Your task to perform on an android device: turn off priority inbox in the gmail app Image 0: 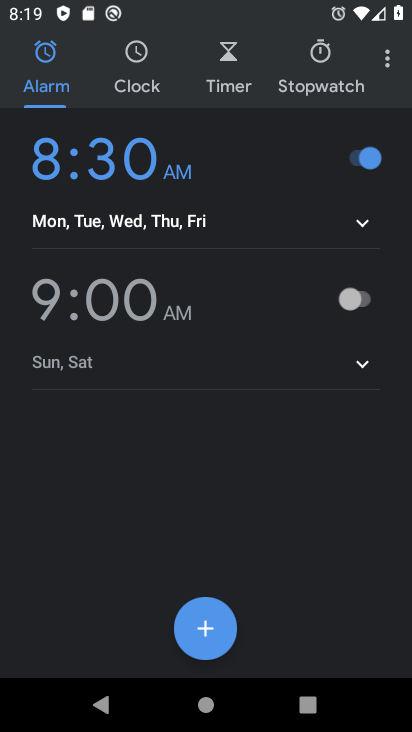
Step 0: press back button
Your task to perform on an android device: turn off priority inbox in the gmail app Image 1: 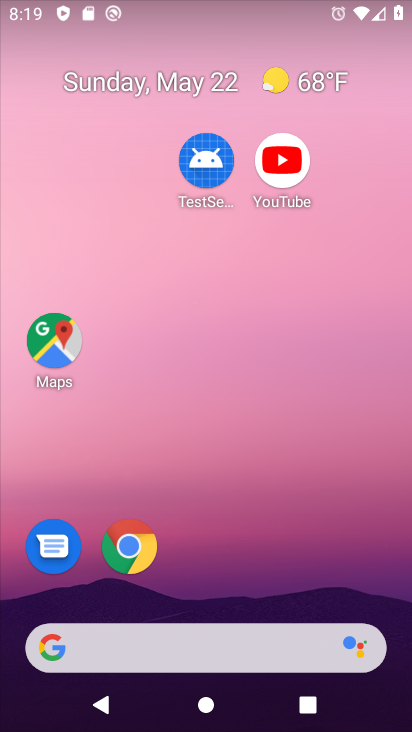
Step 1: drag from (227, 605) to (145, 11)
Your task to perform on an android device: turn off priority inbox in the gmail app Image 2: 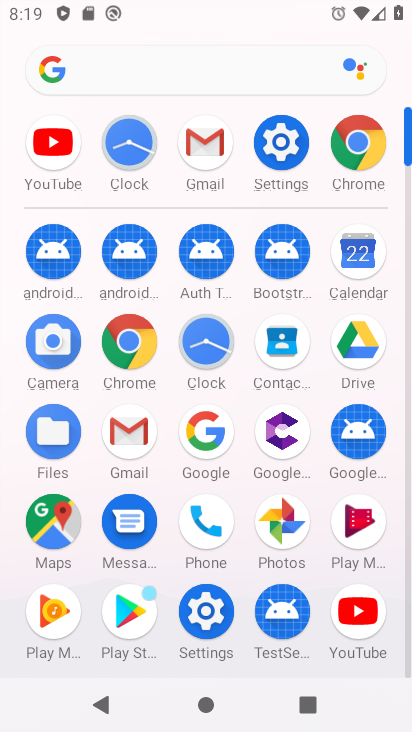
Step 2: click (125, 431)
Your task to perform on an android device: turn off priority inbox in the gmail app Image 3: 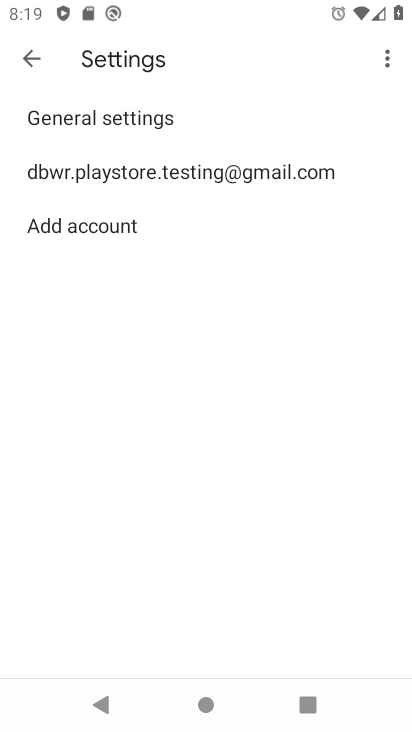
Step 3: click (118, 168)
Your task to perform on an android device: turn off priority inbox in the gmail app Image 4: 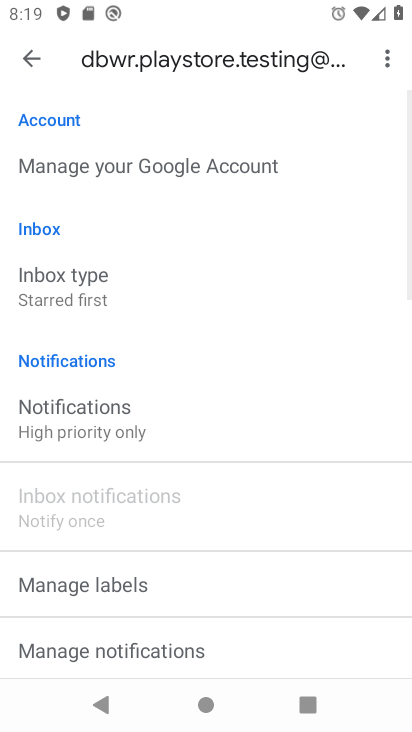
Step 4: click (70, 295)
Your task to perform on an android device: turn off priority inbox in the gmail app Image 5: 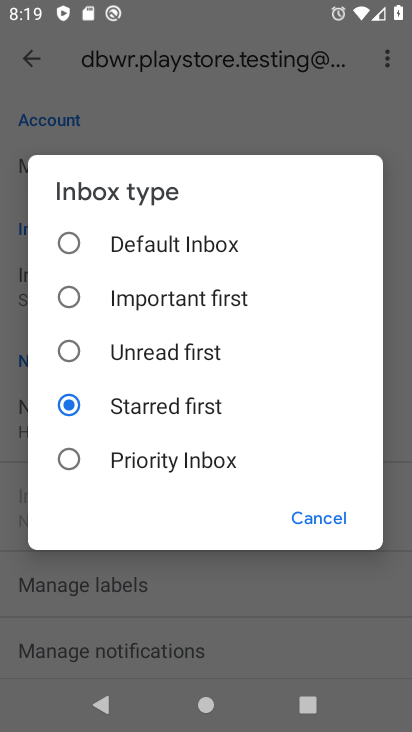
Step 5: click (67, 460)
Your task to perform on an android device: turn off priority inbox in the gmail app Image 6: 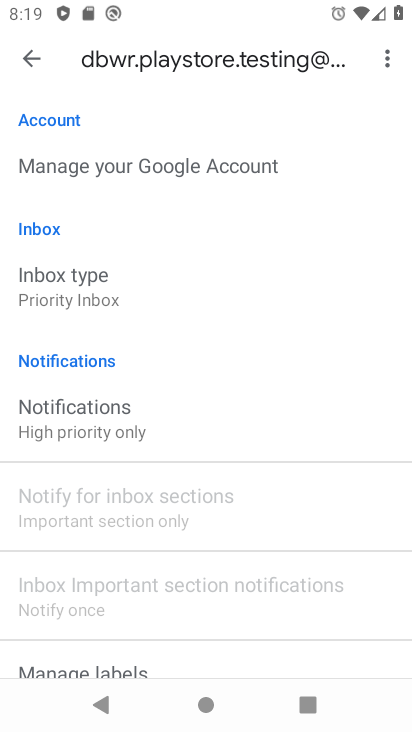
Step 6: task complete